Your task to perform on an android device: Clear the shopping cart on target. Add "razer blade" to the cart on target, then select checkout. Image 0: 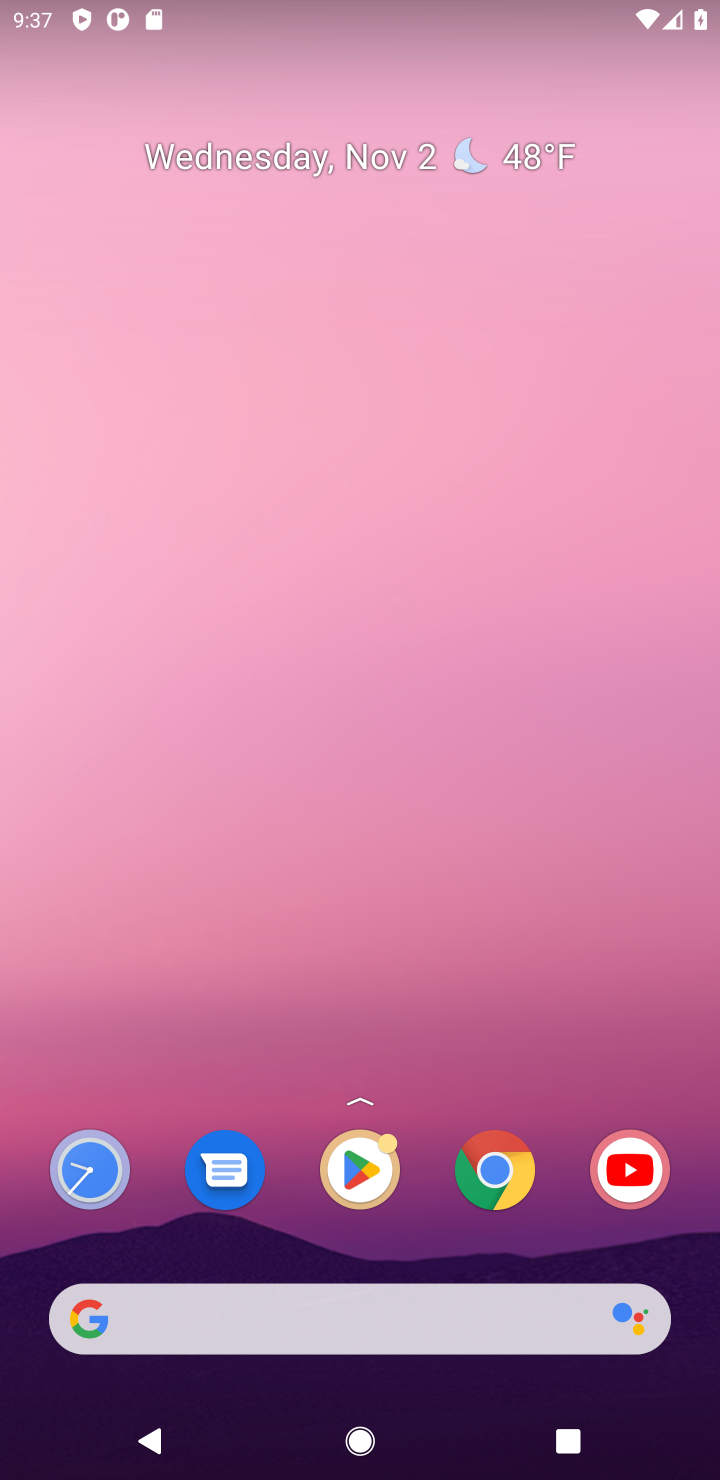
Step 0: drag from (397, 1205) to (434, 312)
Your task to perform on an android device: Clear the shopping cart on target. Add "razer blade" to the cart on target, then select checkout. Image 1: 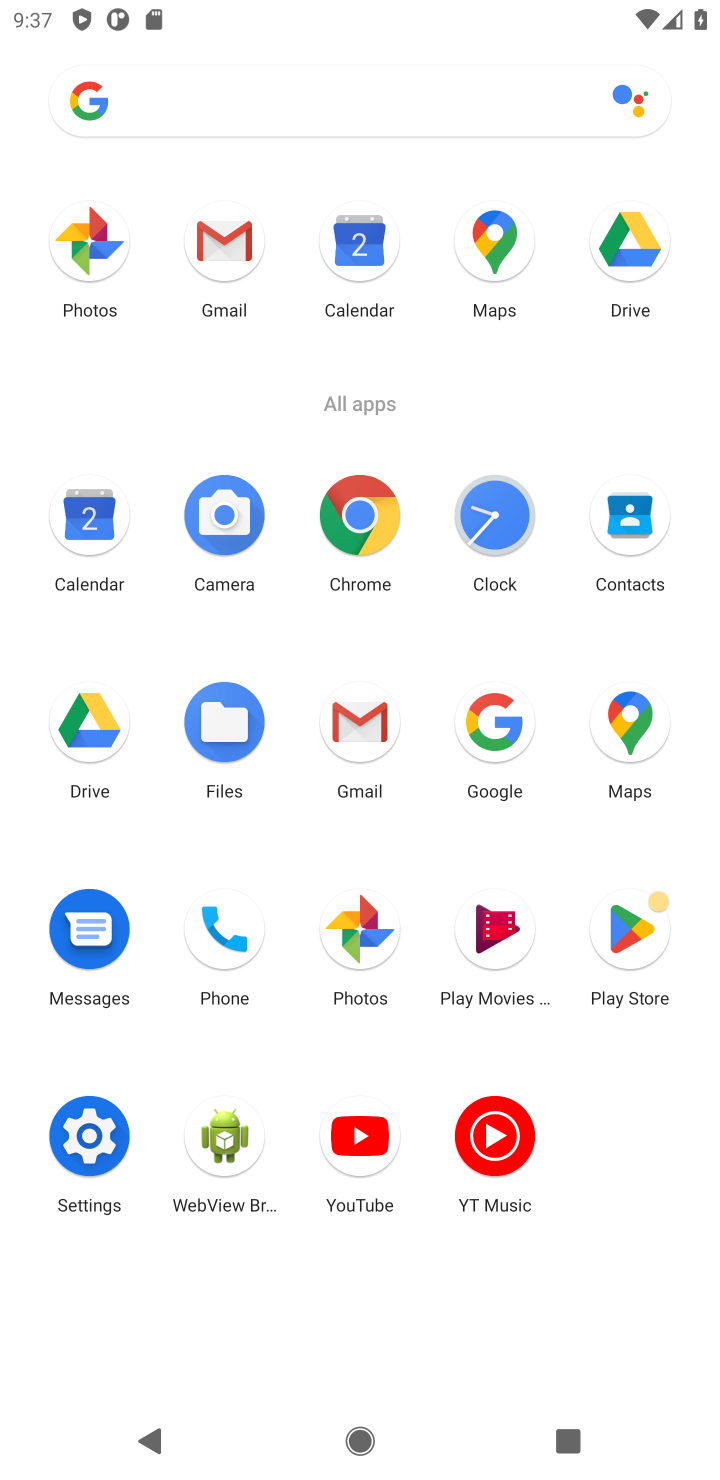
Step 1: click (509, 767)
Your task to perform on an android device: Clear the shopping cart on target. Add "razer blade" to the cart on target, then select checkout. Image 2: 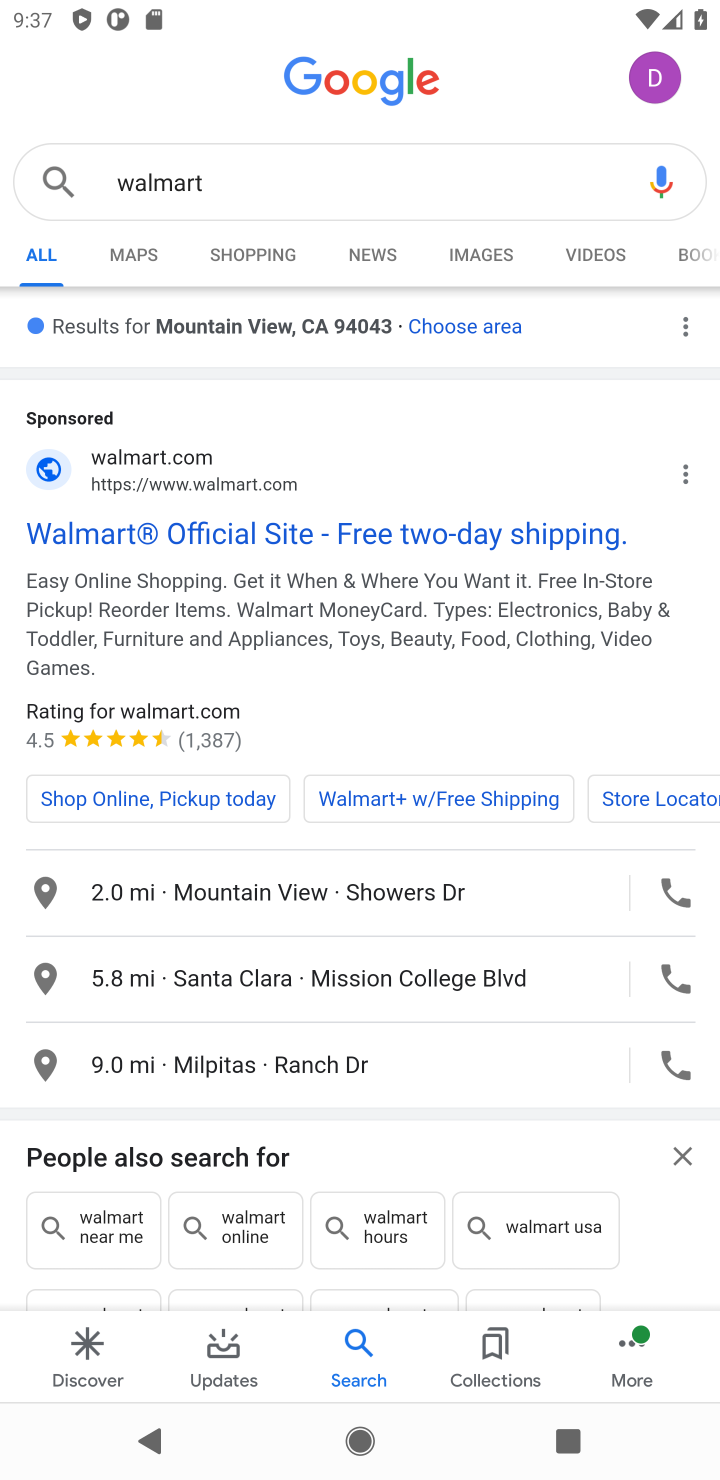
Step 2: click (305, 194)
Your task to perform on an android device: Clear the shopping cart on target. Add "razer blade" to the cart on target, then select checkout. Image 3: 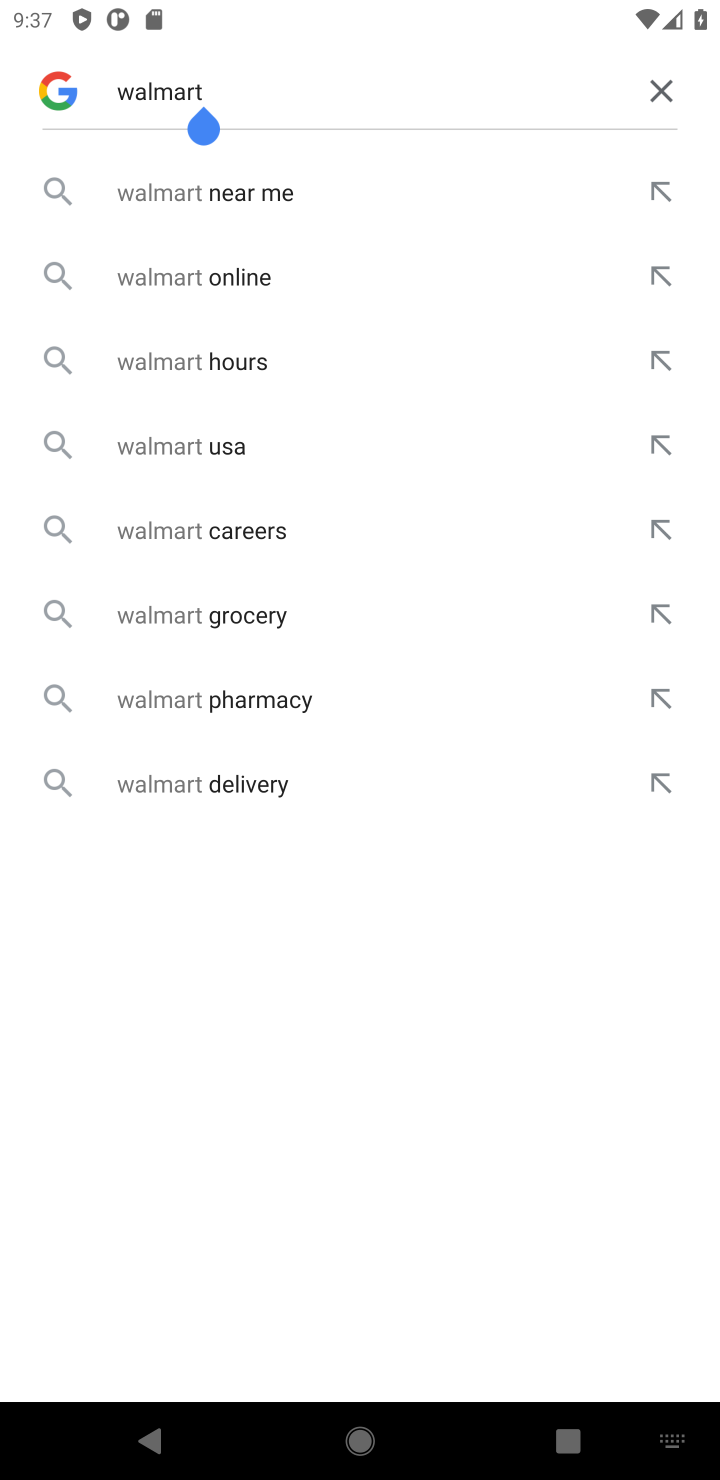
Step 3: click (659, 88)
Your task to perform on an android device: Clear the shopping cart on target. Add "razer blade" to the cart on target, then select checkout. Image 4: 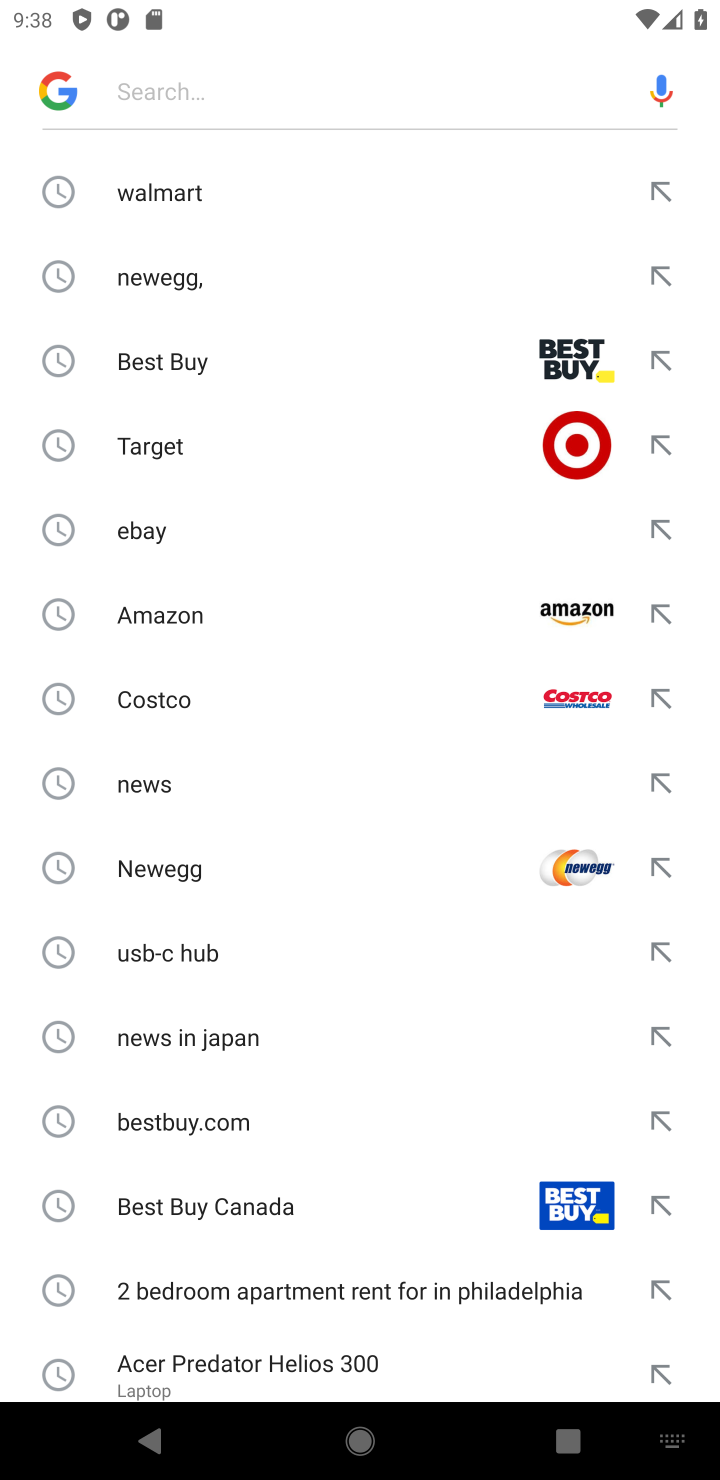
Step 4: click (295, 439)
Your task to perform on an android device: Clear the shopping cart on target. Add "razer blade" to the cart on target, then select checkout. Image 5: 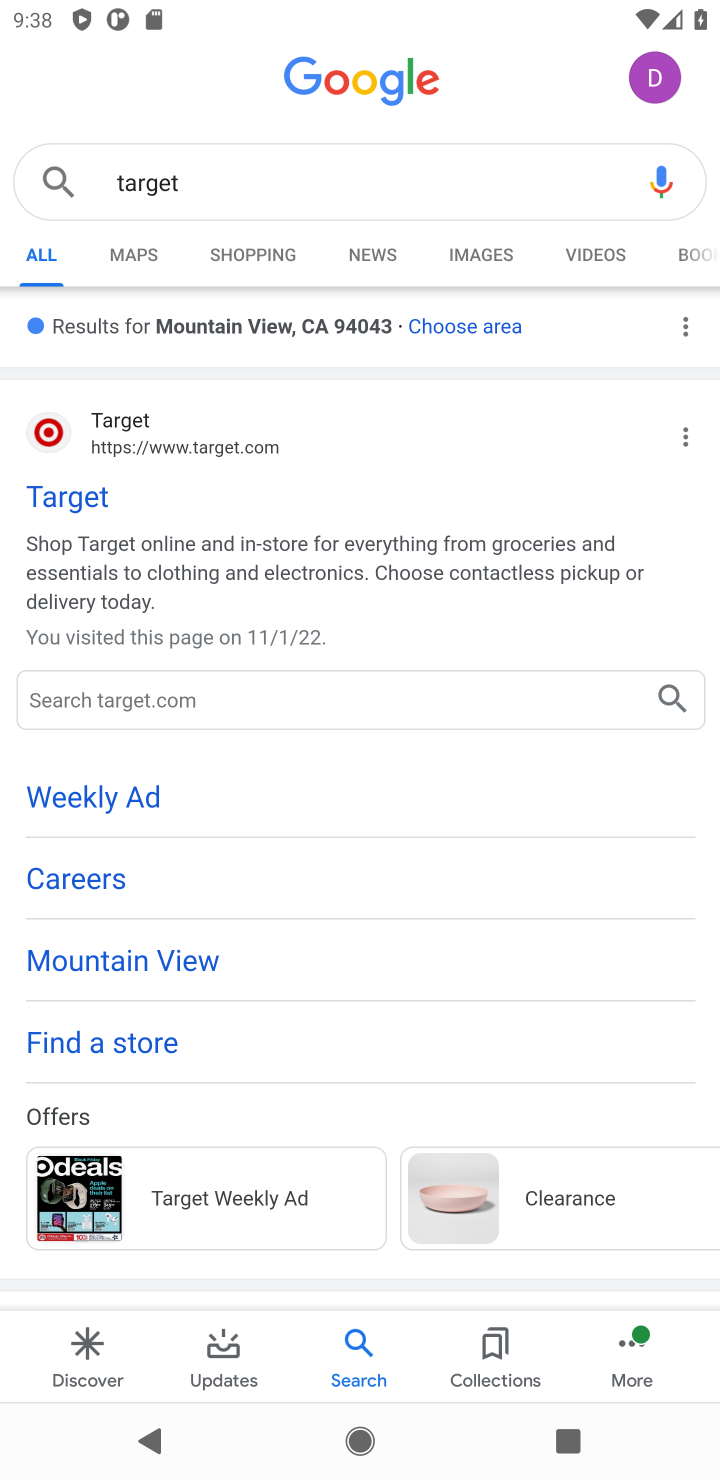
Step 5: click (96, 495)
Your task to perform on an android device: Clear the shopping cart on target. Add "razer blade" to the cart on target, then select checkout. Image 6: 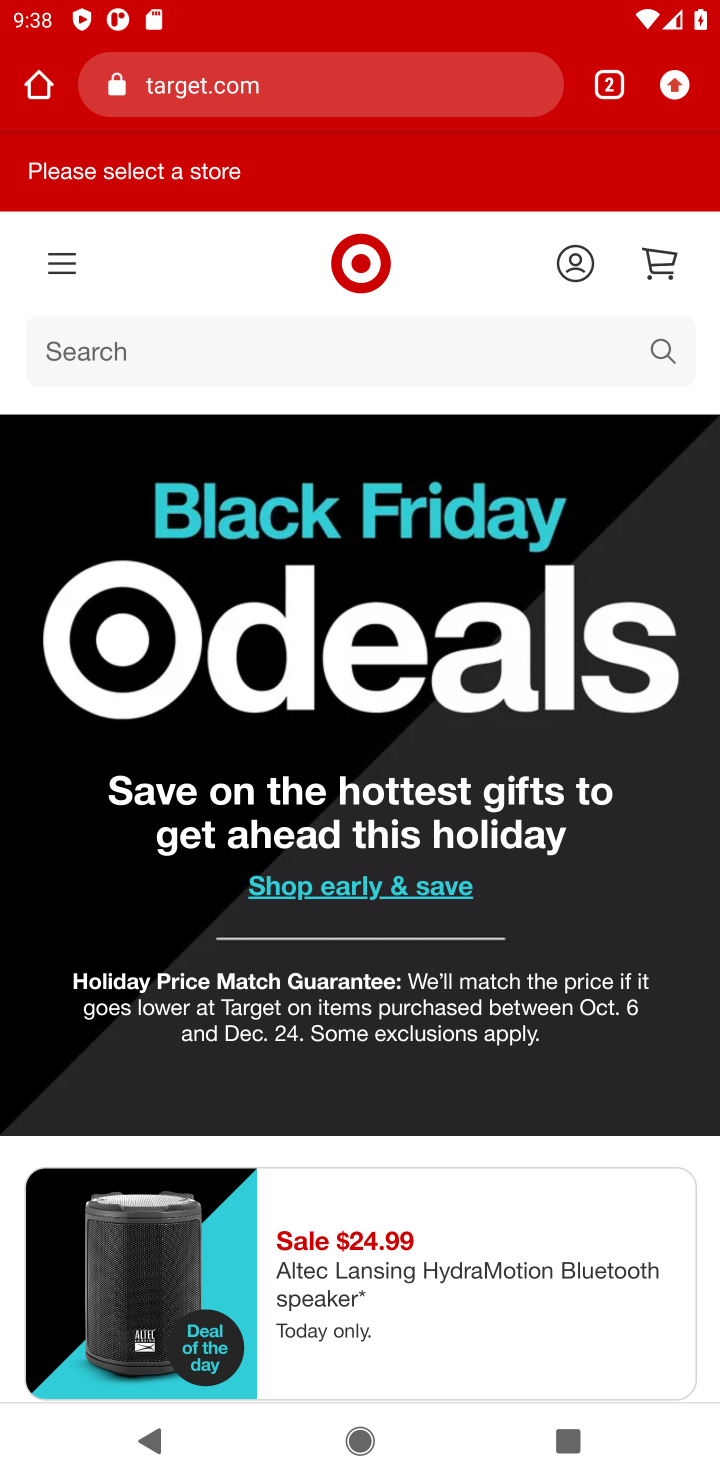
Step 6: click (358, 348)
Your task to perform on an android device: Clear the shopping cart on target. Add "razer blade" to the cart on target, then select checkout. Image 7: 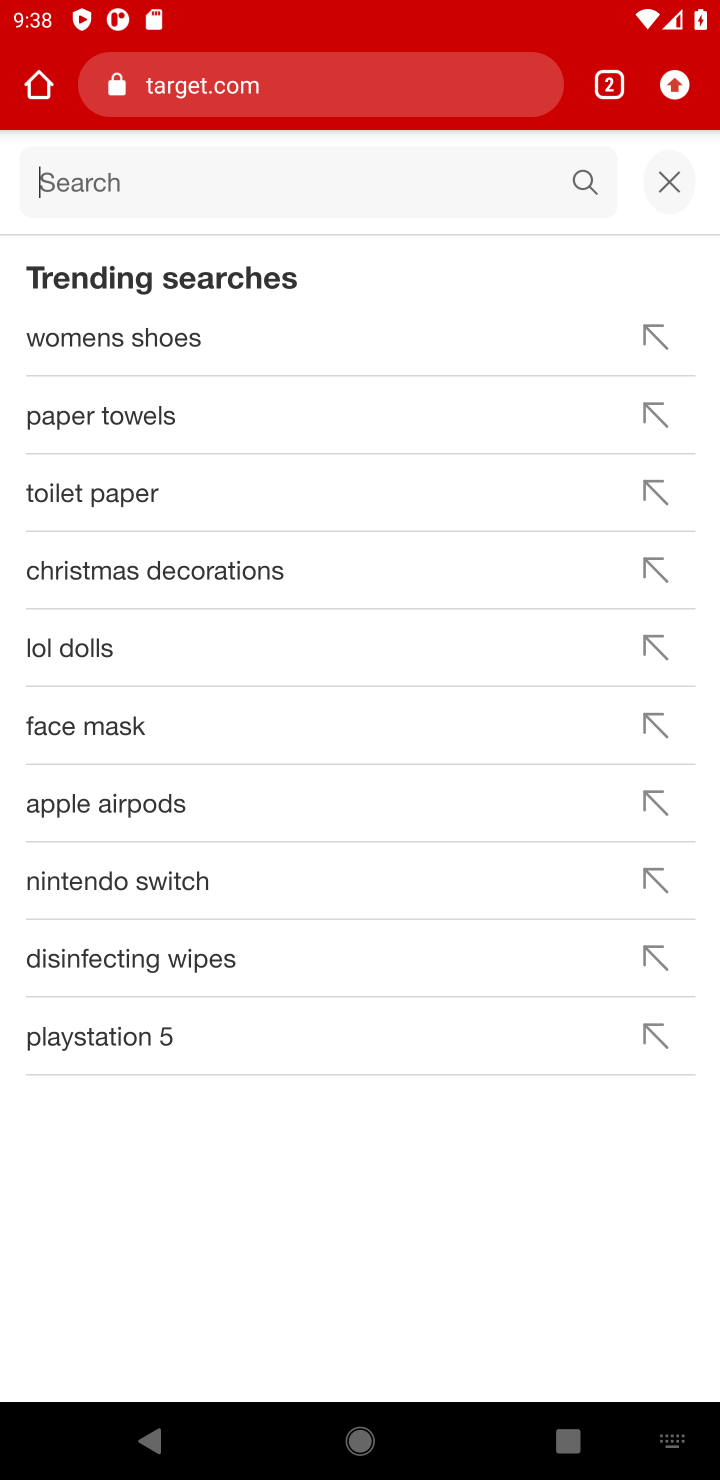
Step 7: type "razer blade"
Your task to perform on an android device: Clear the shopping cart on target. Add "razer blade" to the cart on target, then select checkout. Image 8: 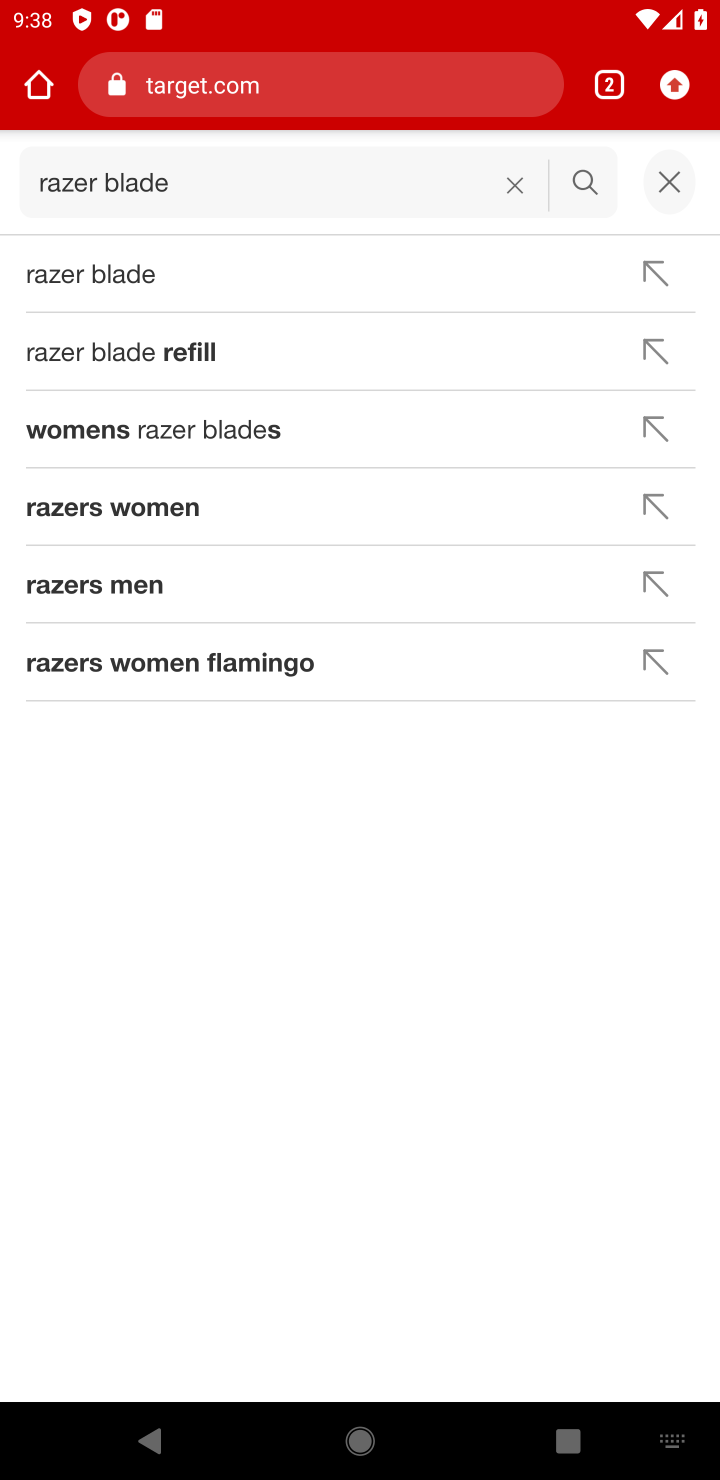
Step 8: click (279, 267)
Your task to perform on an android device: Clear the shopping cart on target. Add "razer blade" to the cart on target, then select checkout. Image 9: 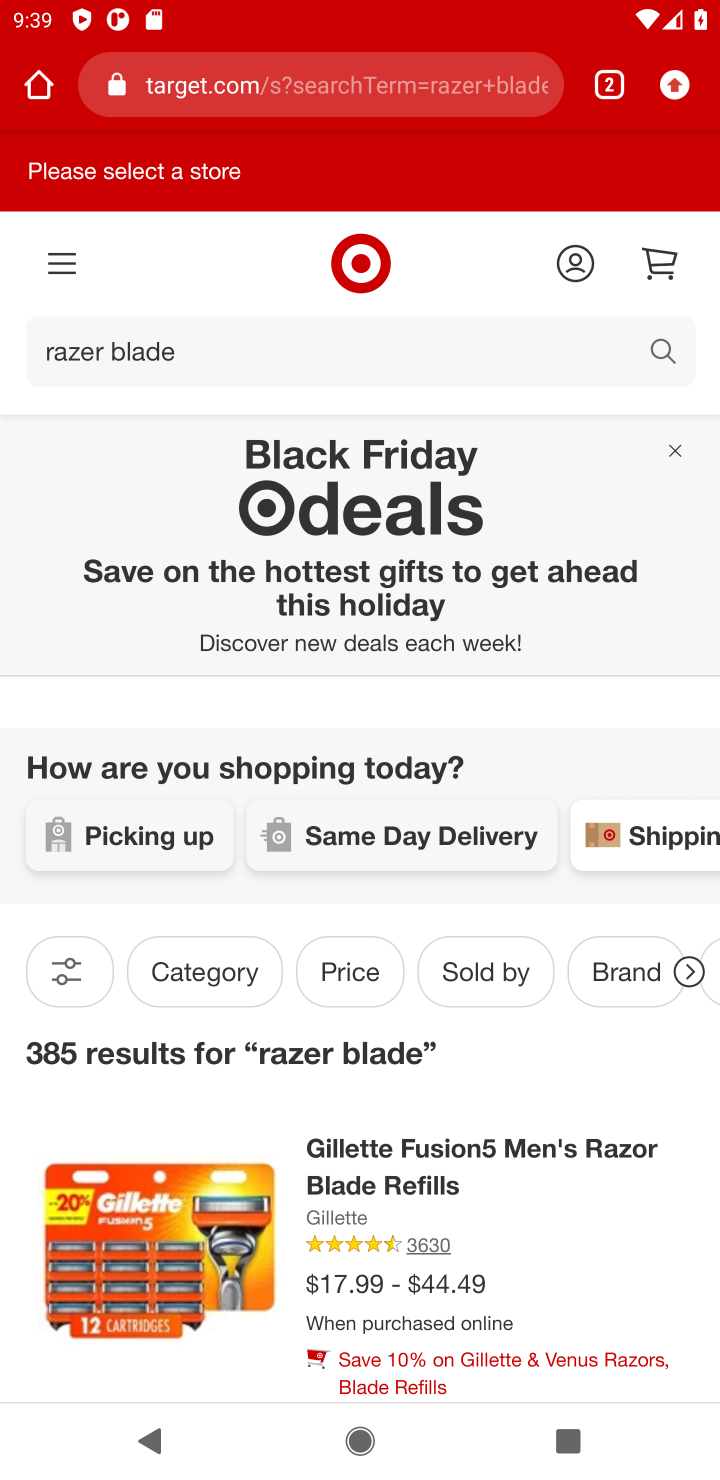
Step 9: click (546, 374)
Your task to perform on an android device: Clear the shopping cart on target. Add "razer blade" to the cart on target, then select checkout. Image 10: 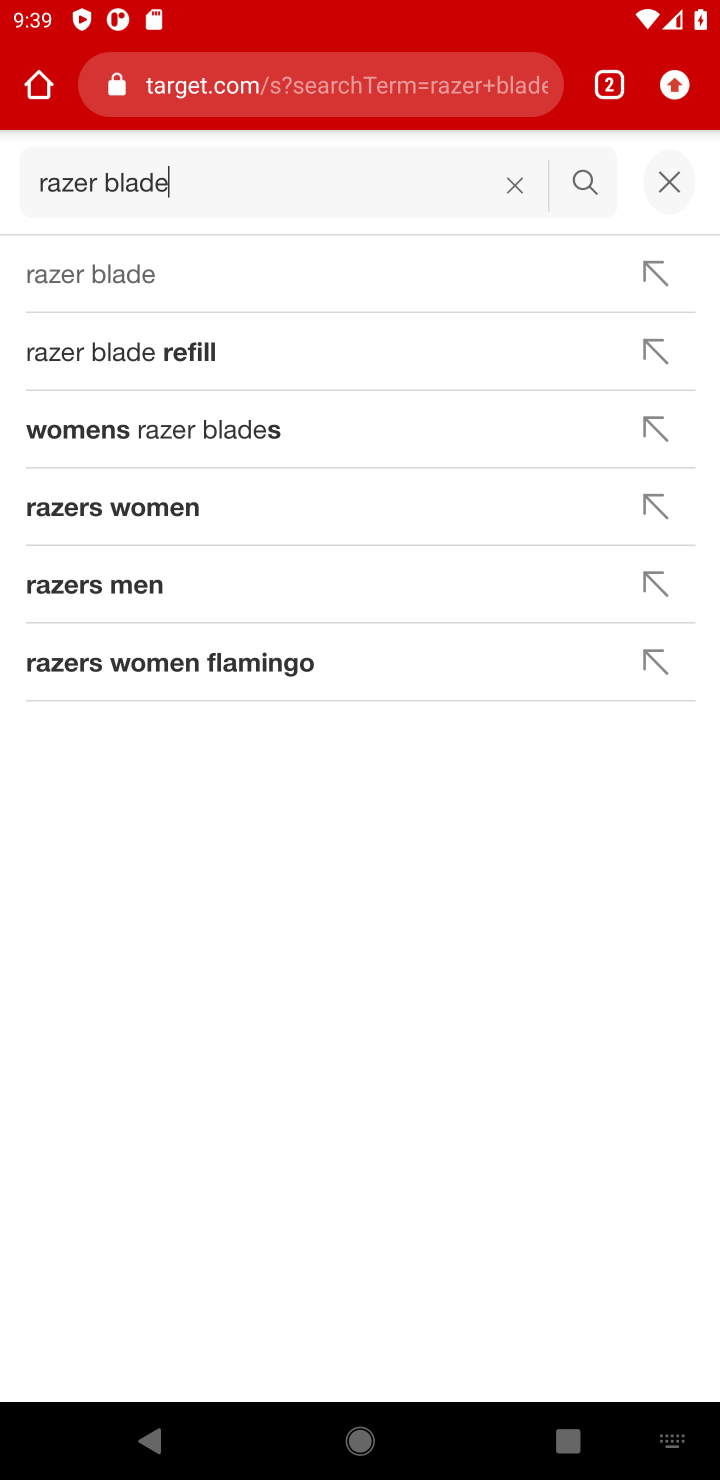
Step 10: click (588, 190)
Your task to perform on an android device: Clear the shopping cart on target. Add "razer blade" to the cart on target, then select checkout. Image 11: 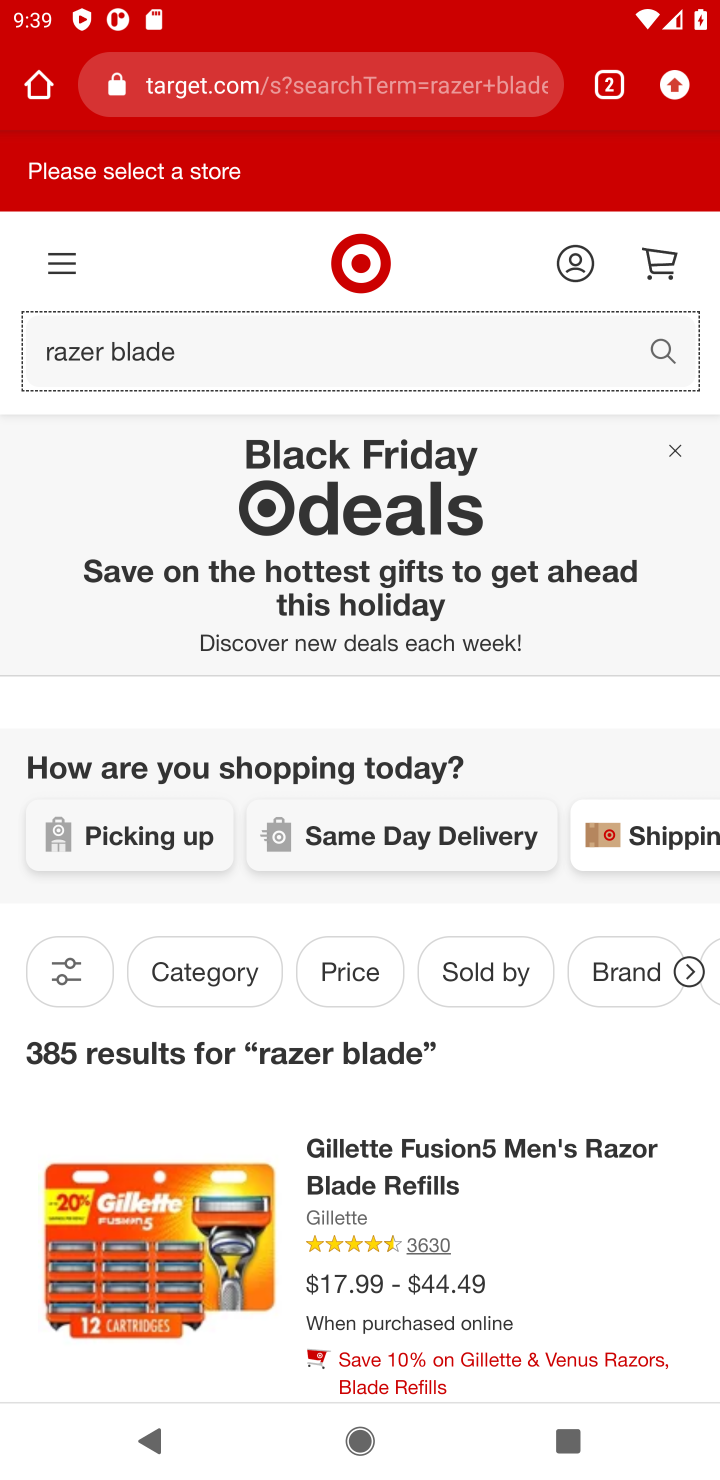
Step 11: click (456, 1183)
Your task to perform on an android device: Clear the shopping cart on target. Add "razer blade" to the cart on target, then select checkout. Image 12: 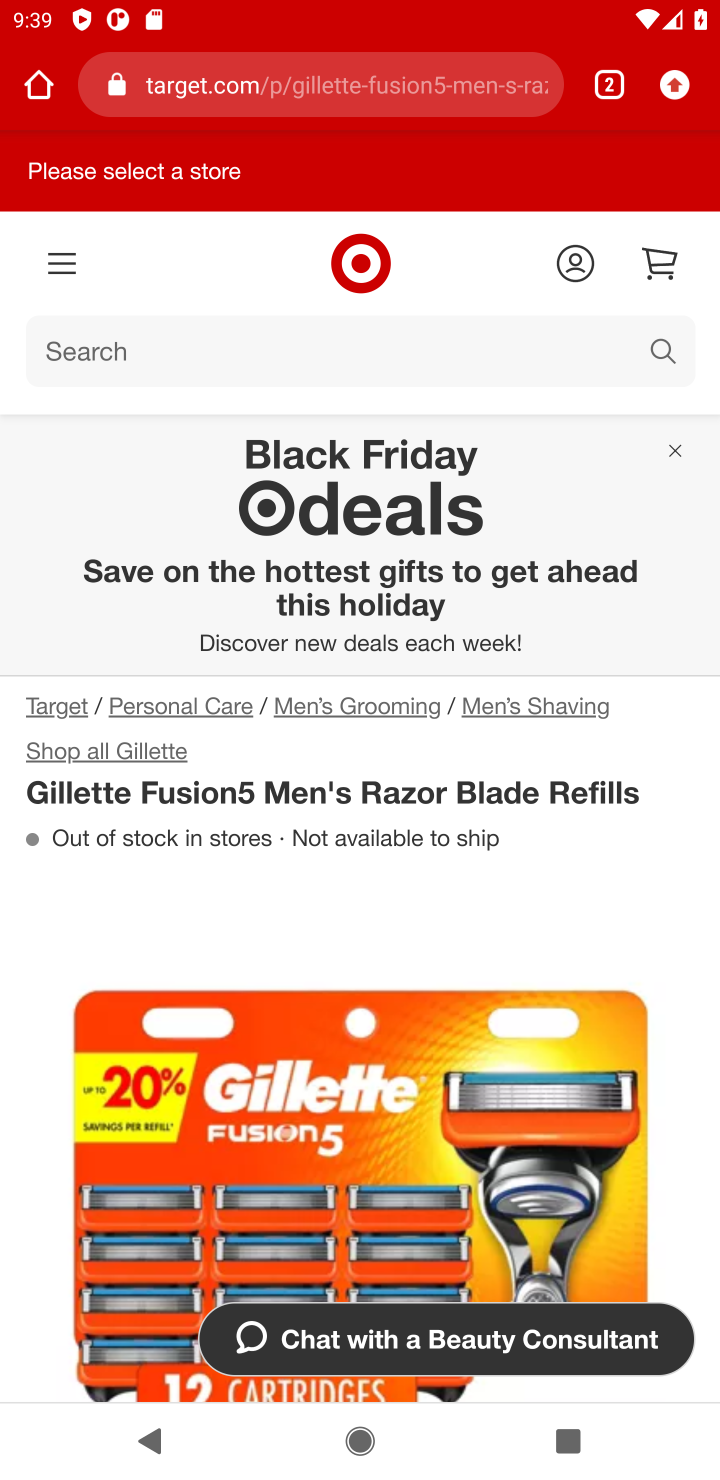
Step 12: drag from (456, 1183) to (438, 91)
Your task to perform on an android device: Clear the shopping cart on target. Add "razer blade" to the cart on target, then select checkout. Image 13: 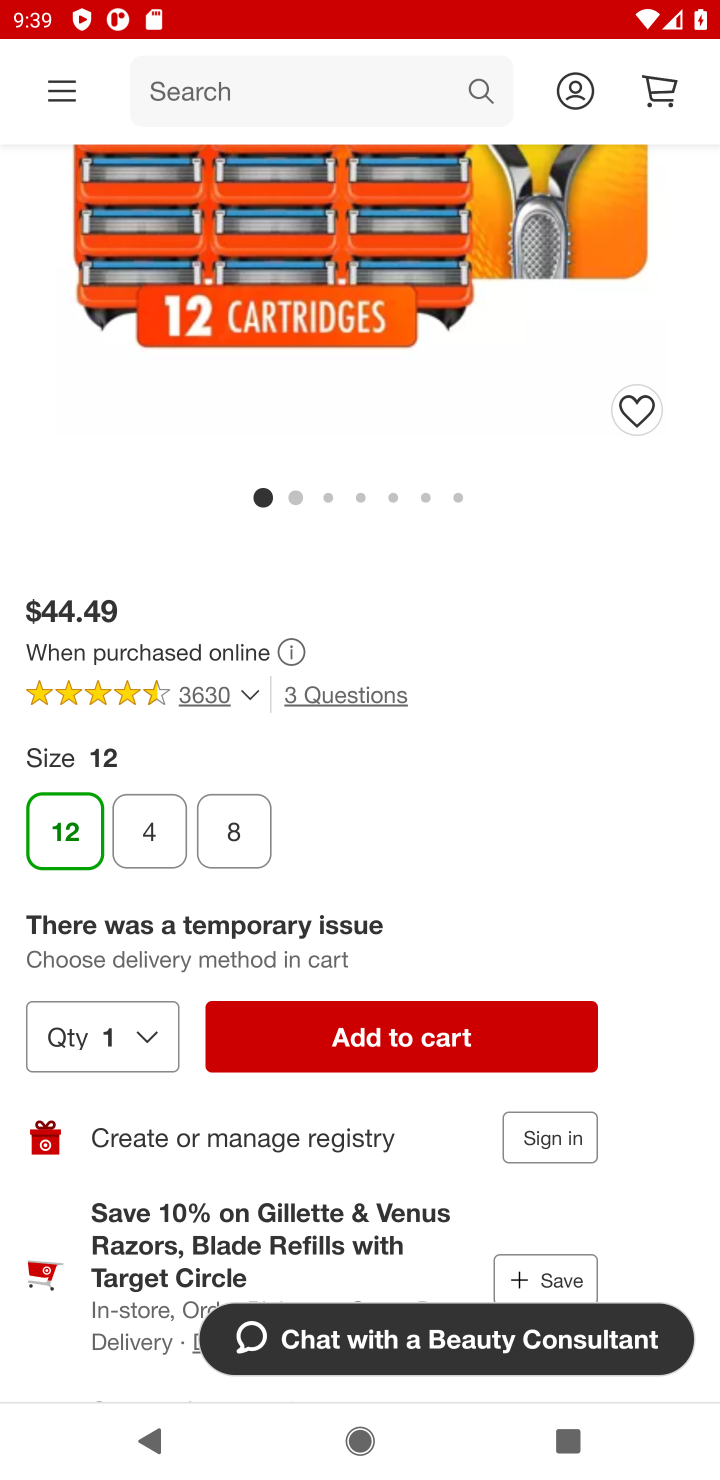
Step 13: click (438, 1044)
Your task to perform on an android device: Clear the shopping cart on target. Add "razer blade" to the cart on target, then select checkout. Image 14: 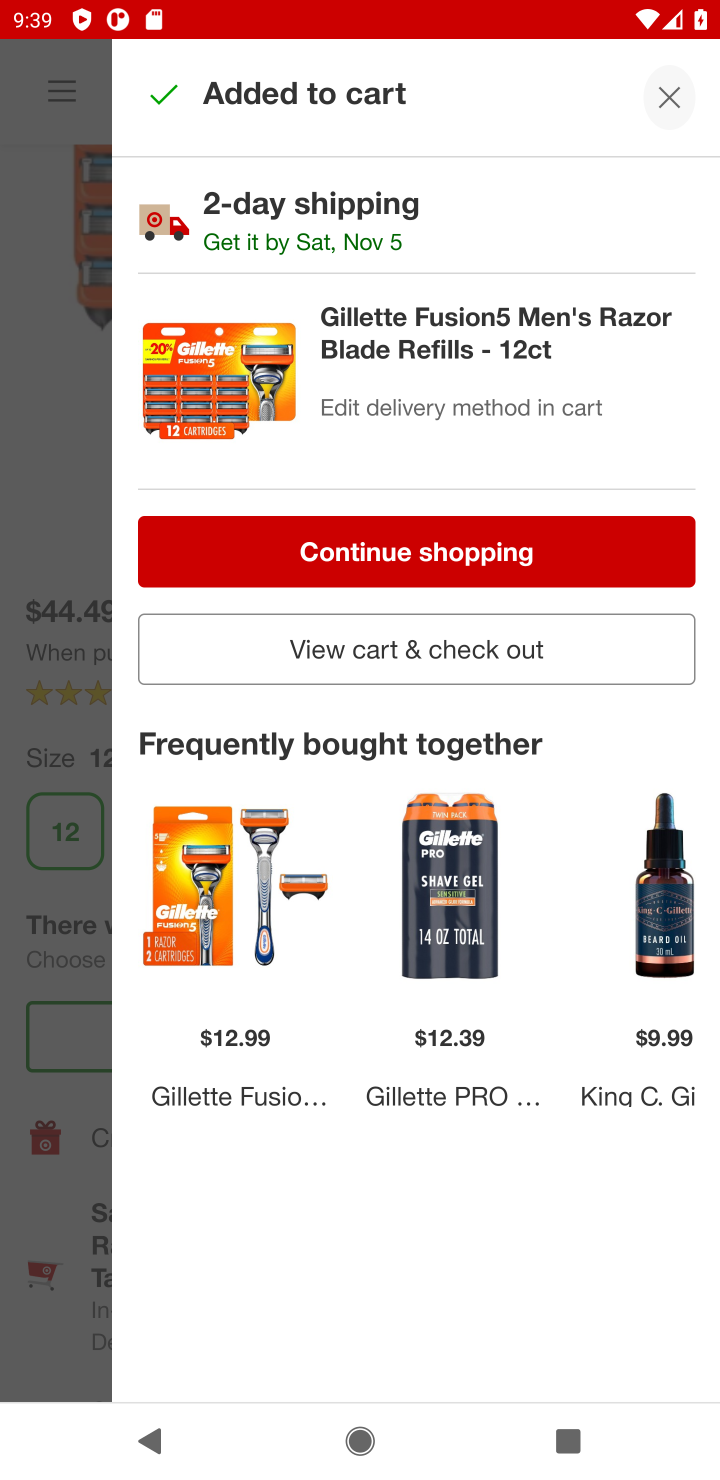
Step 14: click (511, 644)
Your task to perform on an android device: Clear the shopping cart on target. Add "razer blade" to the cart on target, then select checkout. Image 15: 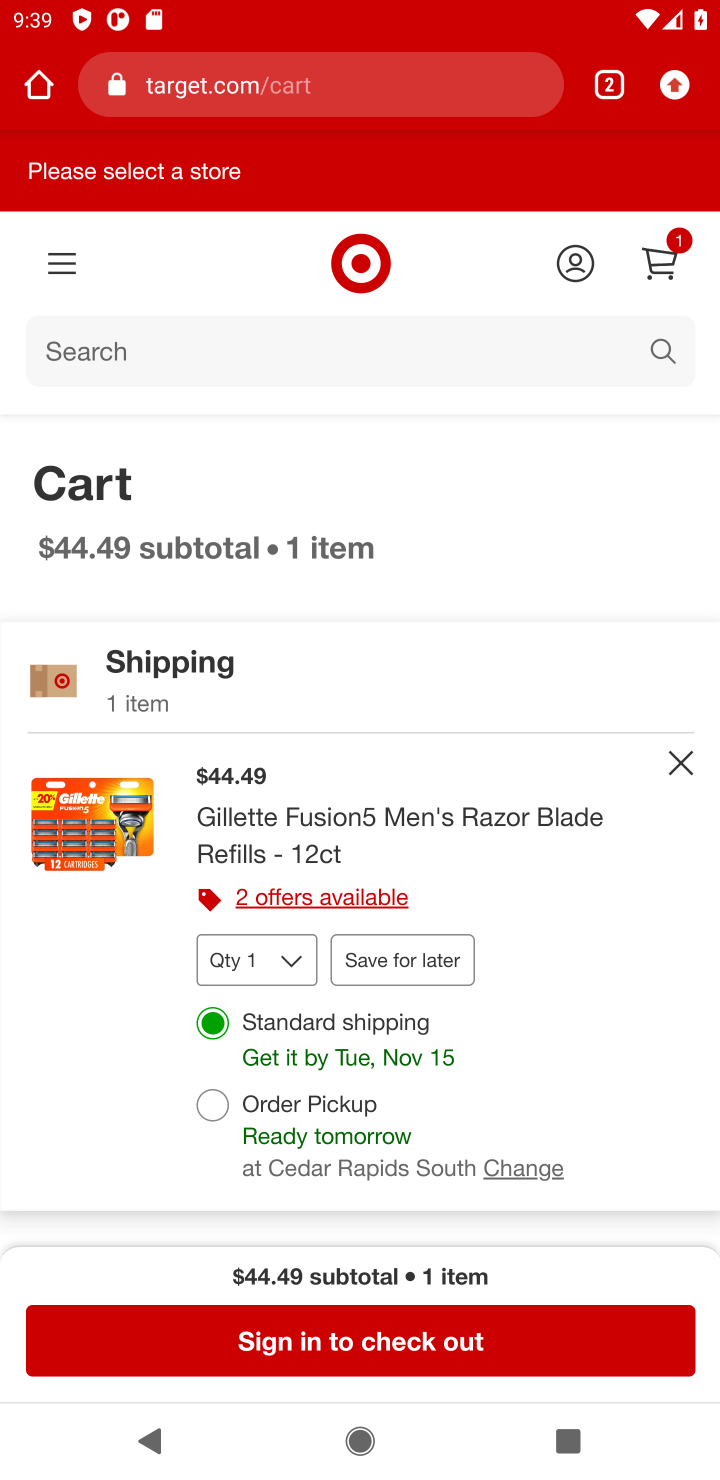
Step 15: click (479, 1337)
Your task to perform on an android device: Clear the shopping cart on target. Add "razer blade" to the cart on target, then select checkout. Image 16: 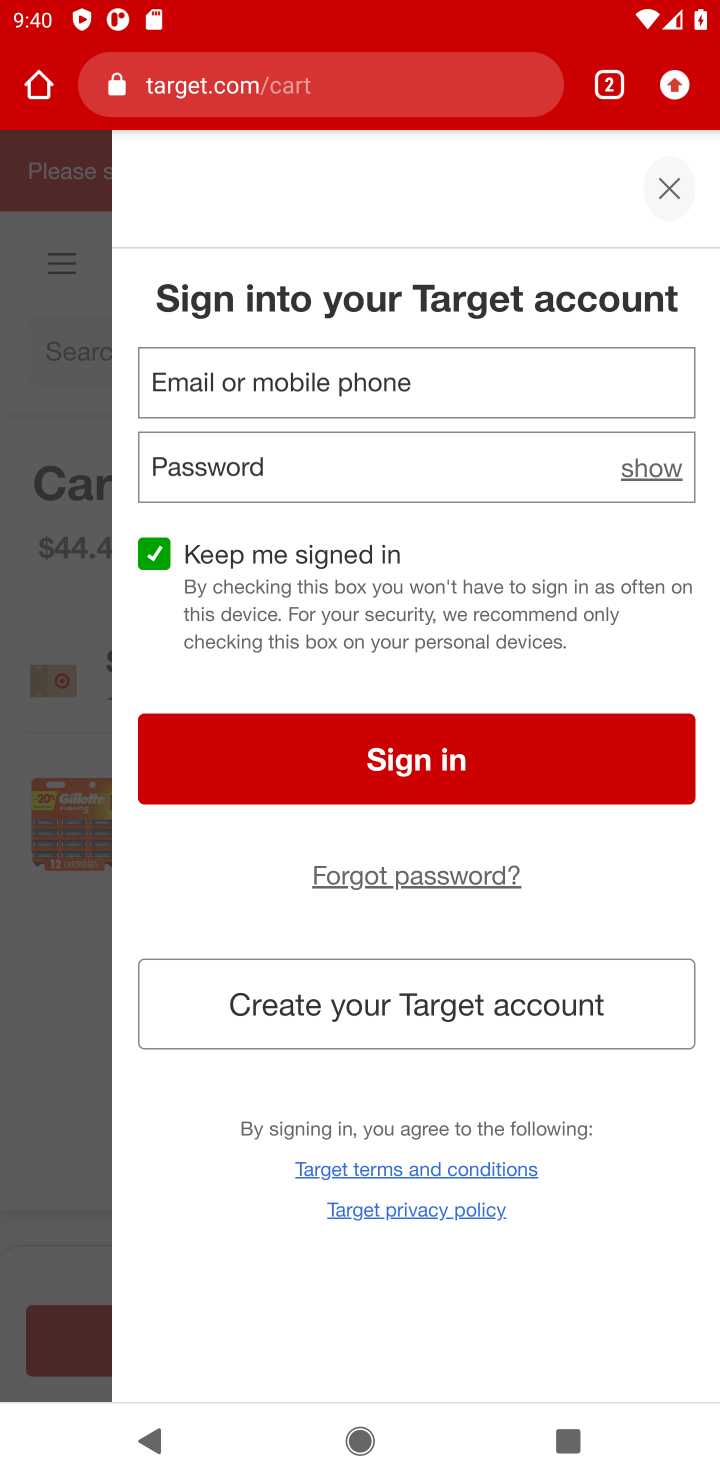
Step 16: task complete